Your task to perform on an android device: Search for seafood restaurants on Google Maps Image 0: 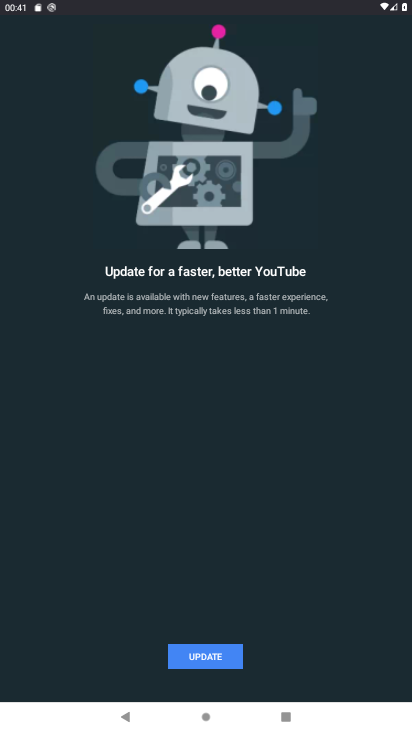
Step 0: press home button
Your task to perform on an android device: Search for seafood restaurants on Google Maps Image 1: 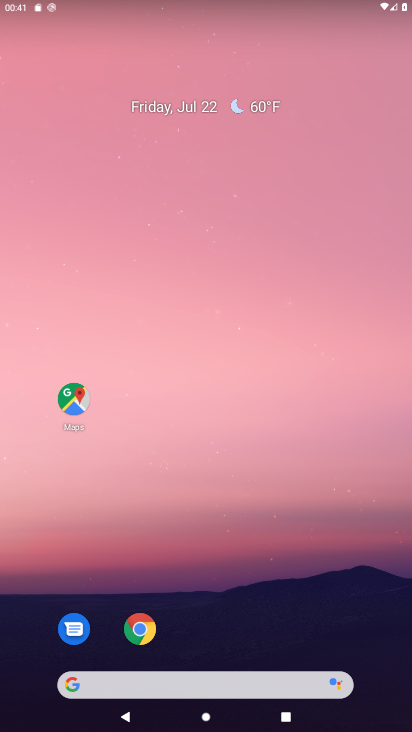
Step 1: drag from (269, 630) to (249, 169)
Your task to perform on an android device: Search for seafood restaurants on Google Maps Image 2: 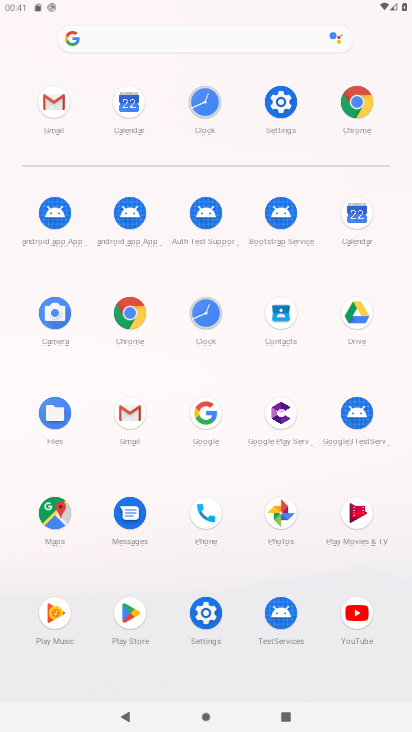
Step 2: click (61, 499)
Your task to perform on an android device: Search for seafood restaurants on Google Maps Image 3: 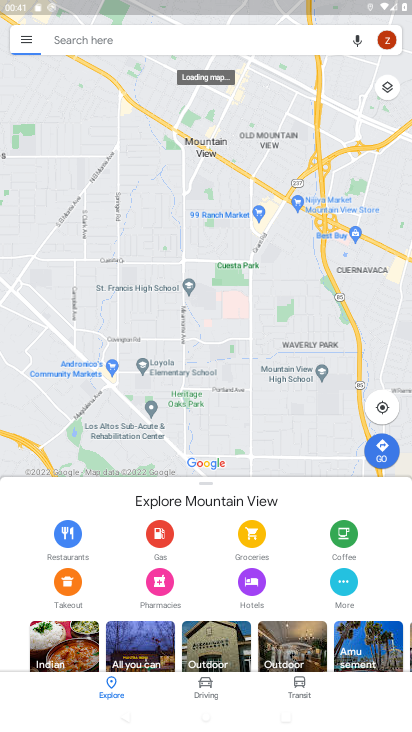
Step 3: click (150, 26)
Your task to perform on an android device: Search for seafood restaurants on Google Maps Image 4: 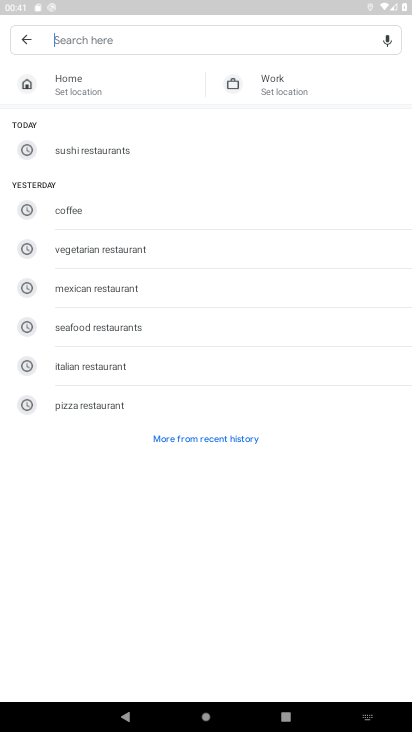
Step 4: click (122, 321)
Your task to perform on an android device: Search for seafood restaurants on Google Maps Image 5: 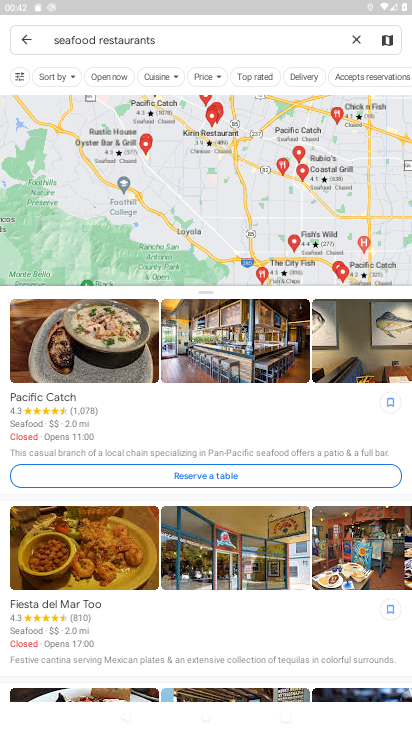
Step 5: task complete